Your task to perform on an android device: Open calendar and show me the fourth week of next month Image 0: 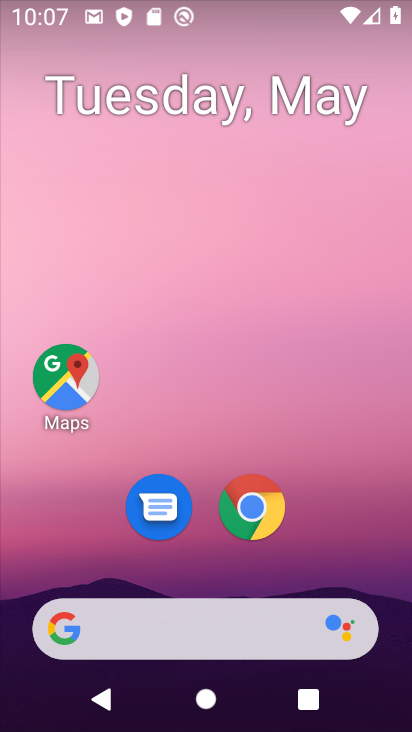
Step 0: press home button
Your task to perform on an android device: Open calendar and show me the fourth week of next month Image 1: 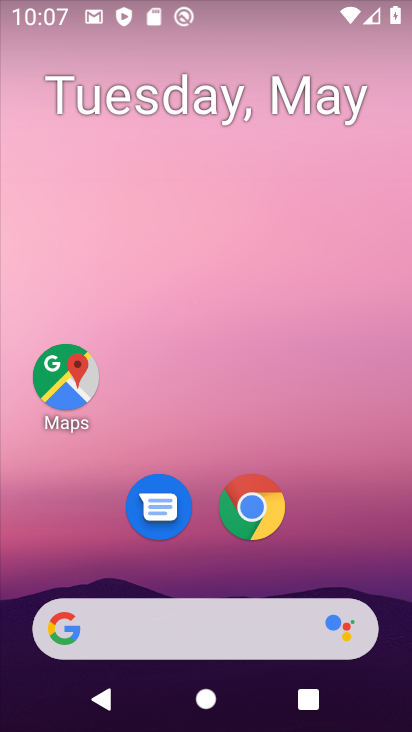
Step 1: drag from (276, 436) to (296, 16)
Your task to perform on an android device: Open calendar and show me the fourth week of next month Image 2: 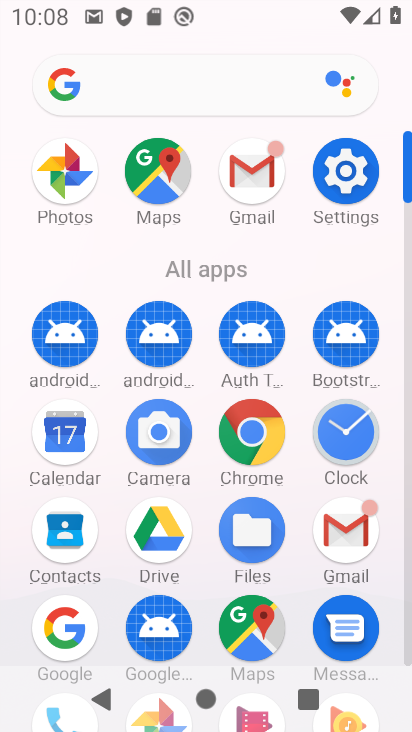
Step 2: click (78, 436)
Your task to perform on an android device: Open calendar and show me the fourth week of next month Image 3: 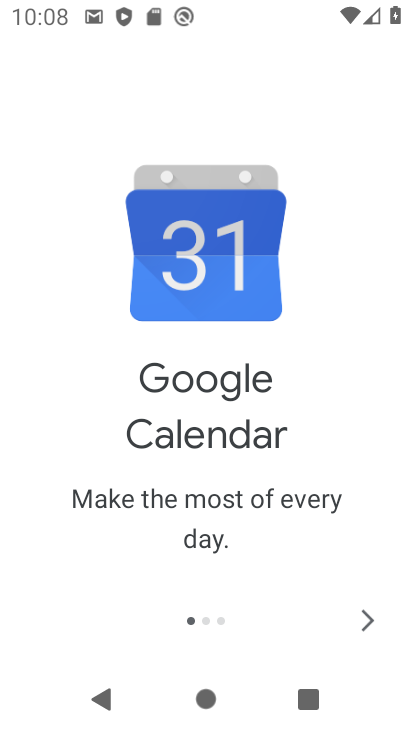
Step 3: click (374, 618)
Your task to perform on an android device: Open calendar and show me the fourth week of next month Image 4: 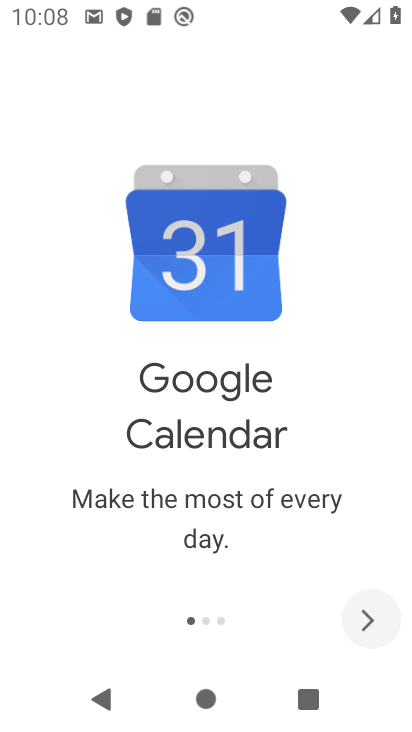
Step 4: click (374, 618)
Your task to perform on an android device: Open calendar and show me the fourth week of next month Image 5: 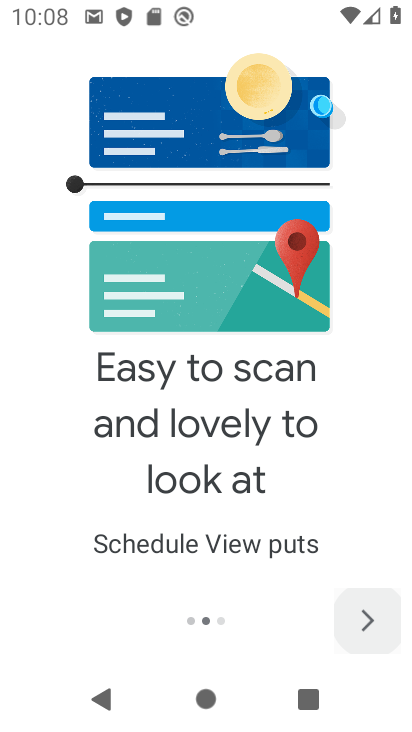
Step 5: click (374, 618)
Your task to perform on an android device: Open calendar and show me the fourth week of next month Image 6: 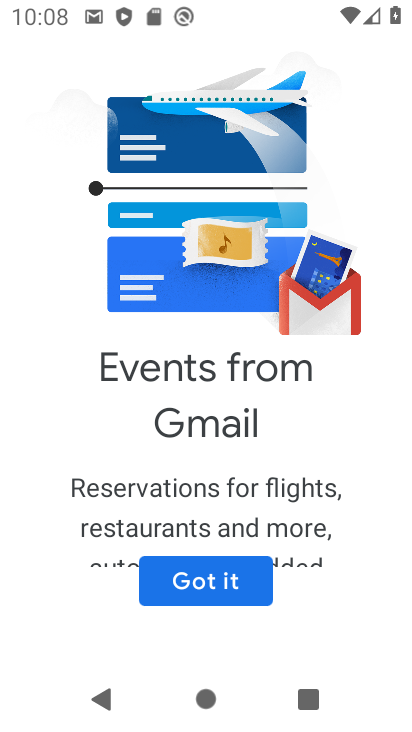
Step 6: click (211, 582)
Your task to perform on an android device: Open calendar and show me the fourth week of next month Image 7: 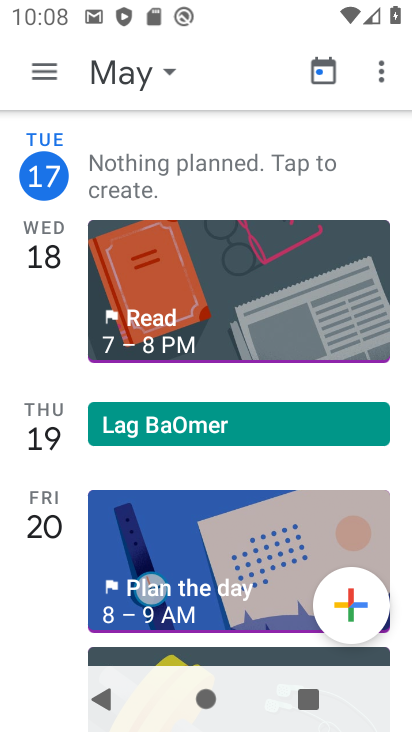
Step 7: click (31, 66)
Your task to perform on an android device: Open calendar and show me the fourth week of next month Image 8: 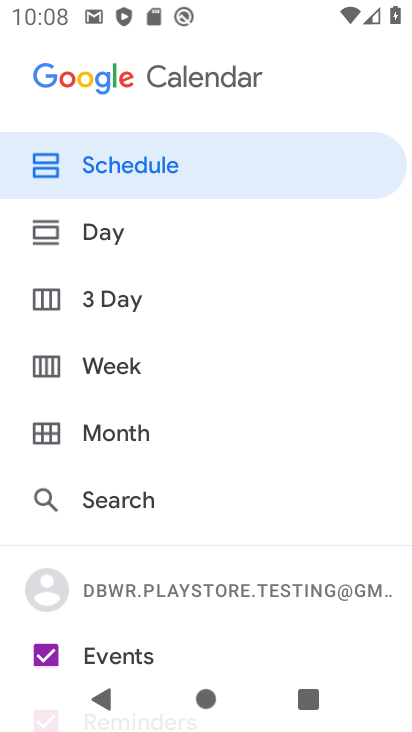
Step 8: click (111, 361)
Your task to perform on an android device: Open calendar and show me the fourth week of next month Image 9: 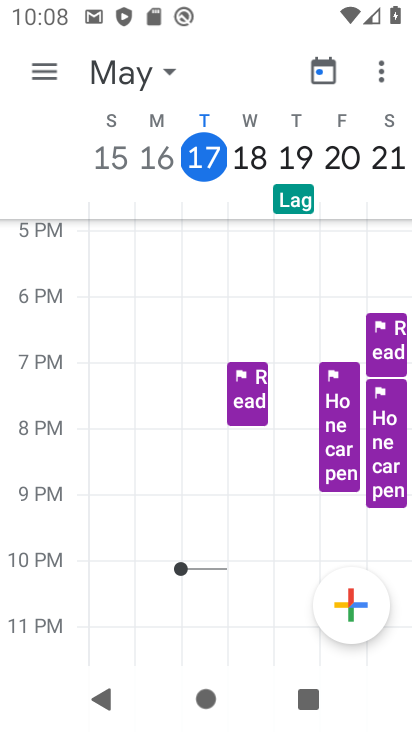
Step 9: click (164, 72)
Your task to perform on an android device: Open calendar and show me the fourth week of next month Image 10: 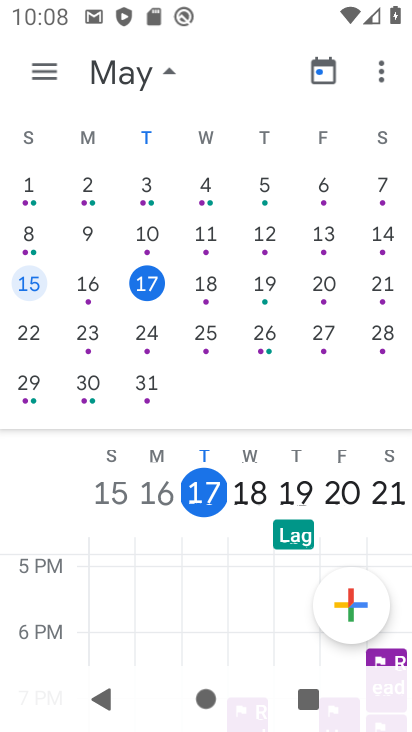
Step 10: drag from (373, 241) to (4, 278)
Your task to perform on an android device: Open calendar and show me the fourth week of next month Image 11: 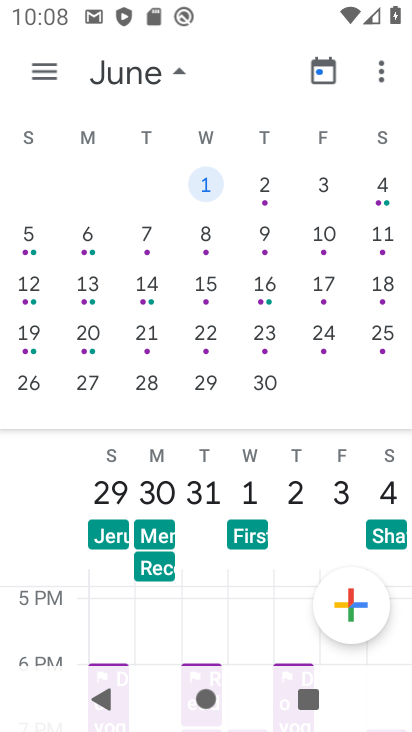
Step 11: click (203, 232)
Your task to perform on an android device: Open calendar and show me the fourth week of next month Image 12: 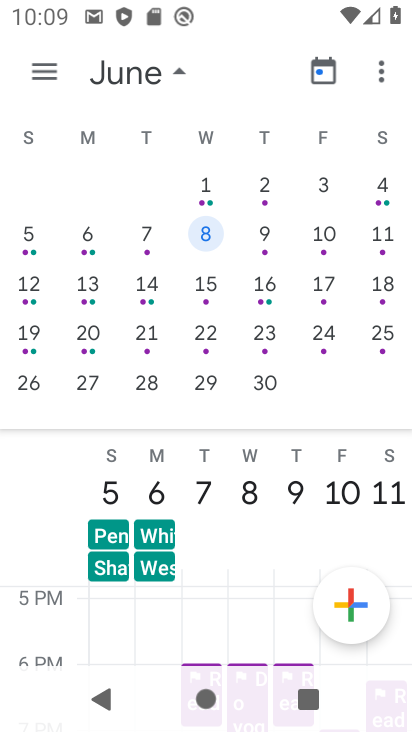
Step 12: drag from (250, 556) to (163, 293)
Your task to perform on an android device: Open calendar and show me the fourth week of next month Image 13: 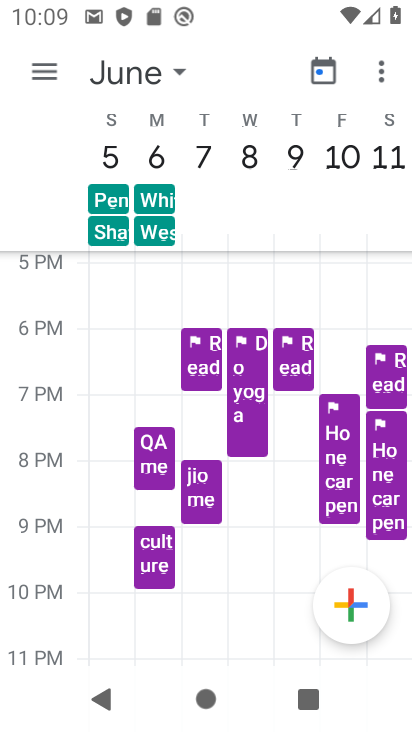
Step 13: click (178, 74)
Your task to perform on an android device: Open calendar and show me the fourth week of next month Image 14: 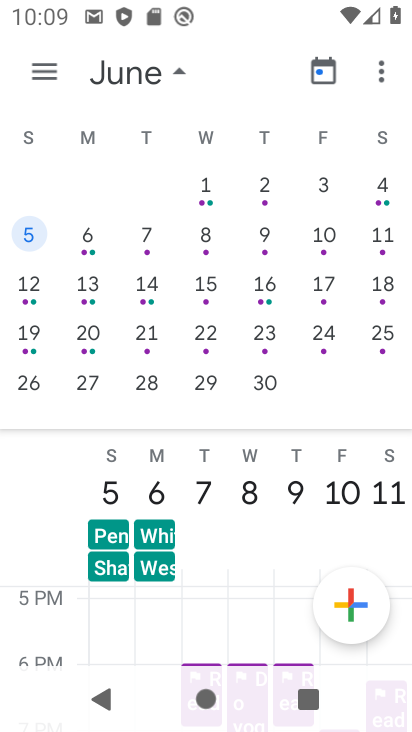
Step 14: click (149, 323)
Your task to perform on an android device: Open calendar and show me the fourth week of next month Image 15: 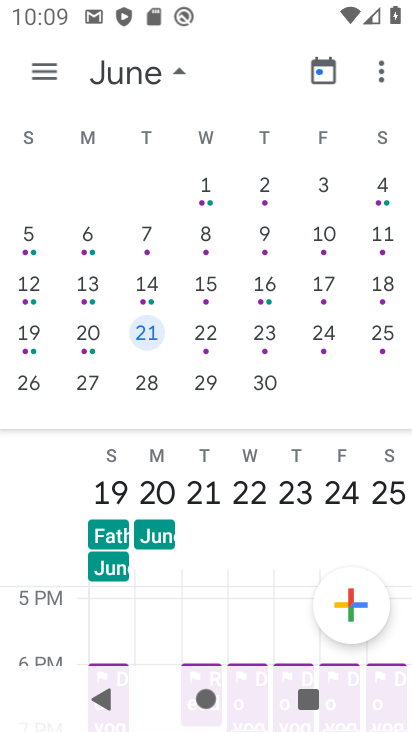
Step 15: task complete